Your task to perform on an android device: turn off wifi Image 0: 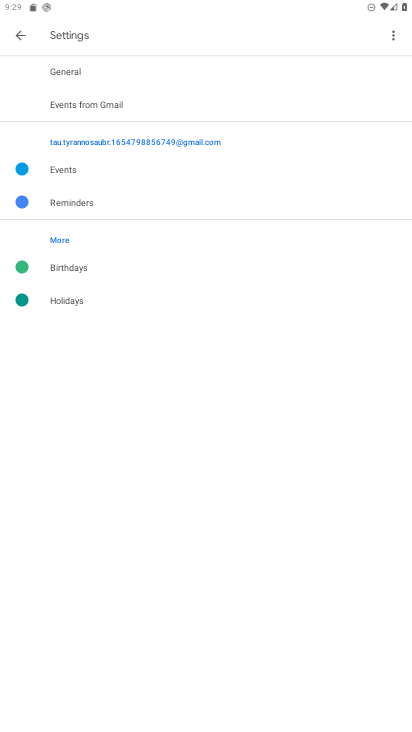
Step 0: press home button
Your task to perform on an android device: turn off wifi Image 1: 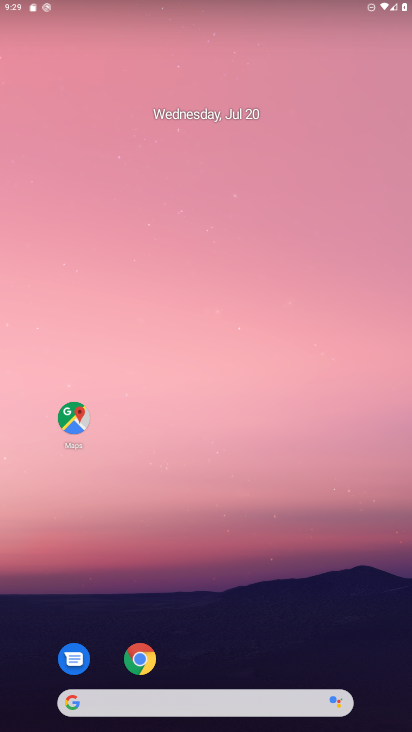
Step 1: drag from (249, 487) to (201, 86)
Your task to perform on an android device: turn off wifi Image 2: 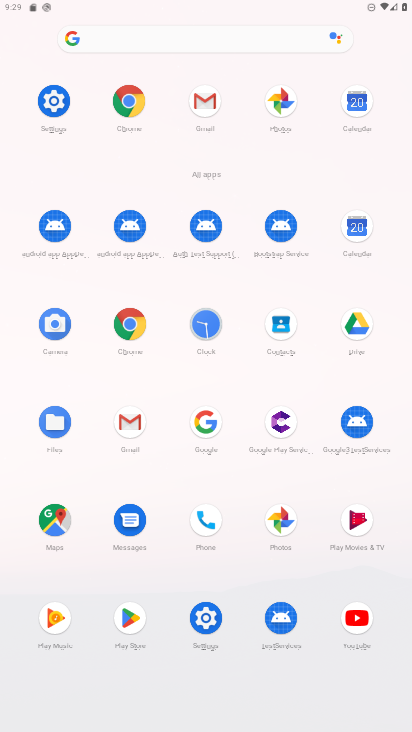
Step 2: click (49, 101)
Your task to perform on an android device: turn off wifi Image 3: 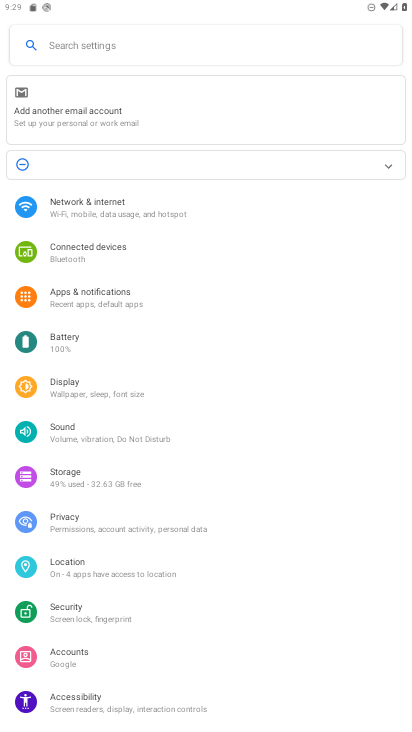
Step 3: click (127, 215)
Your task to perform on an android device: turn off wifi Image 4: 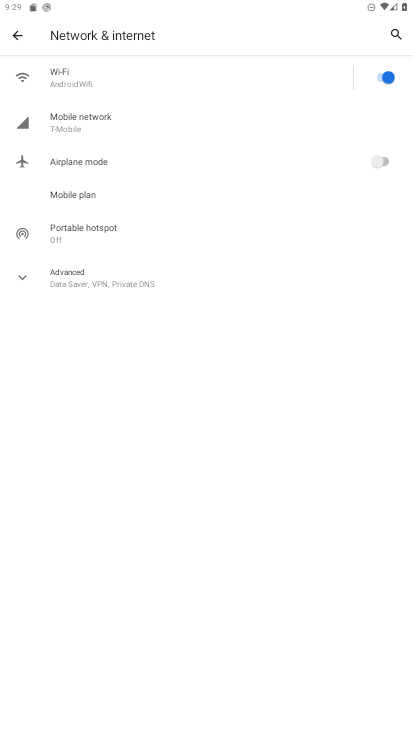
Step 4: click (387, 79)
Your task to perform on an android device: turn off wifi Image 5: 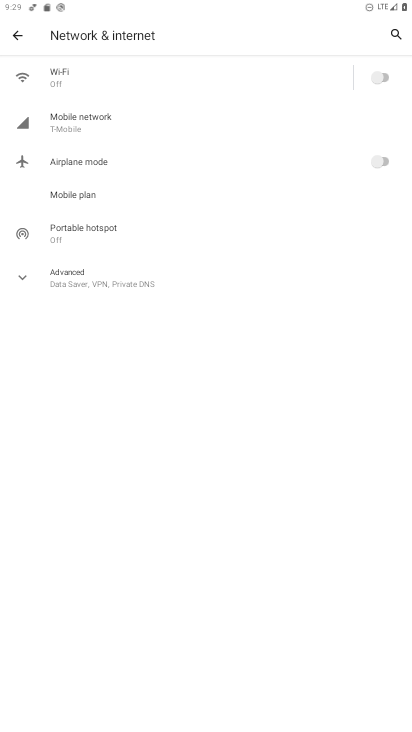
Step 5: task complete